Your task to perform on an android device: turn on wifi Image 0: 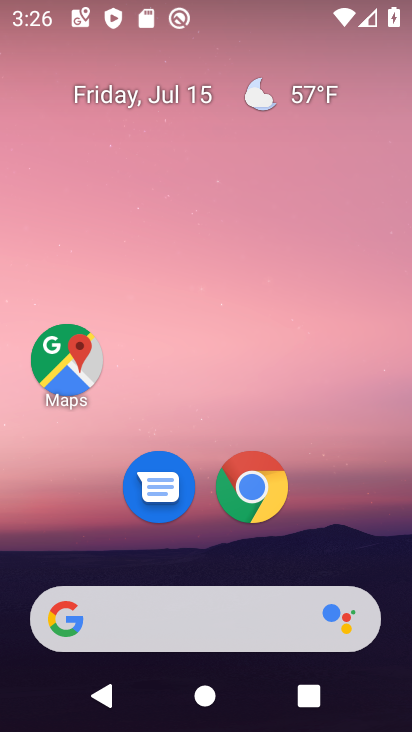
Step 0: press home button
Your task to perform on an android device: turn on wifi Image 1: 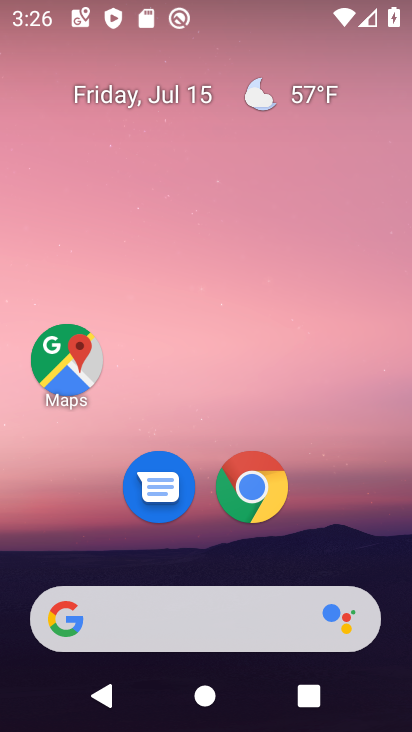
Step 1: drag from (208, 557) to (390, 1)
Your task to perform on an android device: turn on wifi Image 2: 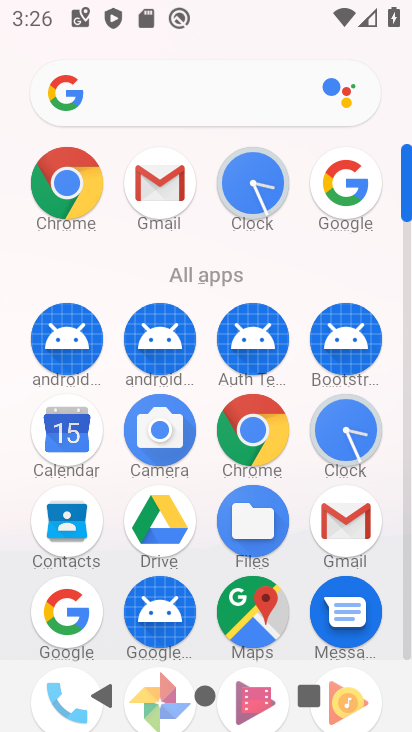
Step 2: drag from (193, 506) to (254, 42)
Your task to perform on an android device: turn on wifi Image 3: 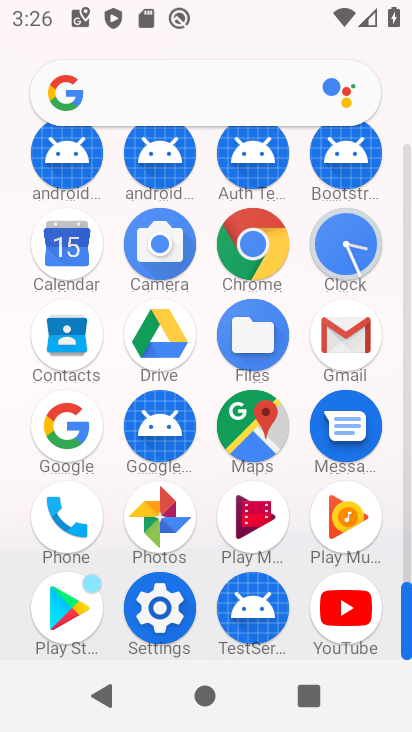
Step 3: click (162, 611)
Your task to perform on an android device: turn on wifi Image 4: 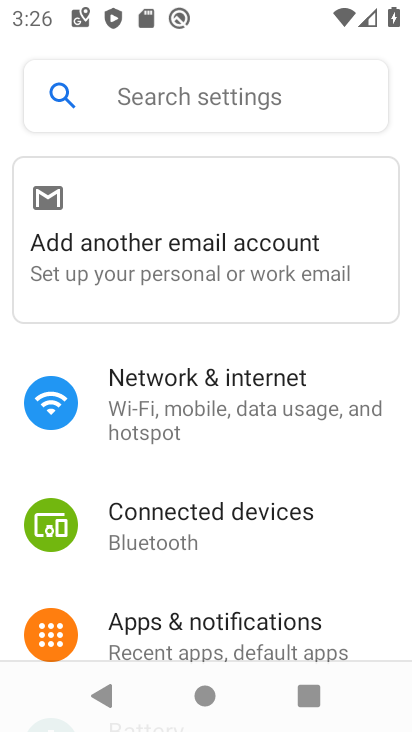
Step 4: click (184, 434)
Your task to perform on an android device: turn on wifi Image 5: 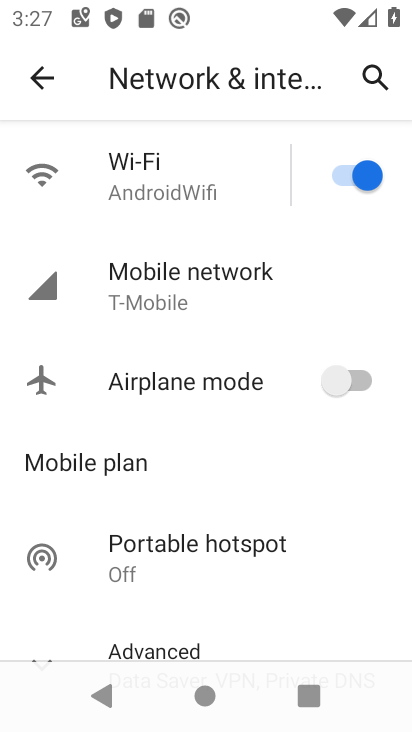
Step 5: task complete